Your task to perform on an android device: toggle translation in the chrome app Image 0: 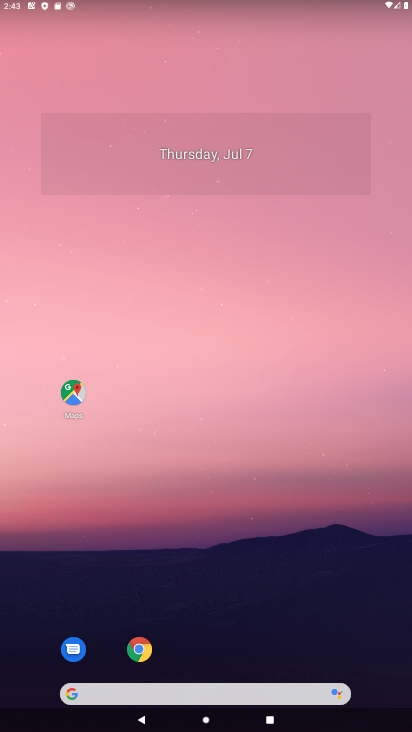
Step 0: click (143, 656)
Your task to perform on an android device: toggle translation in the chrome app Image 1: 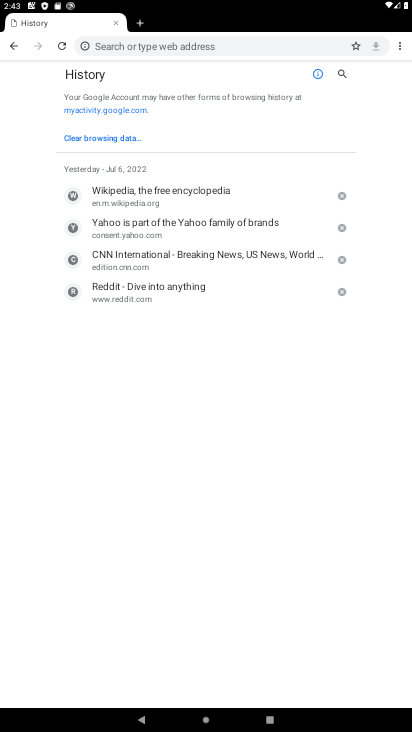
Step 1: drag from (397, 41) to (305, 213)
Your task to perform on an android device: toggle translation in the chrome app Image 2: 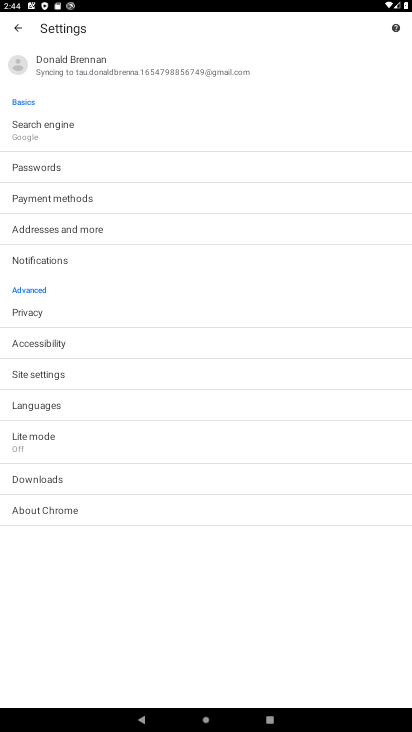
Step 2: click (50, 407)
Your task to perform on an android device: toggle translation in the chrome app Image 3: 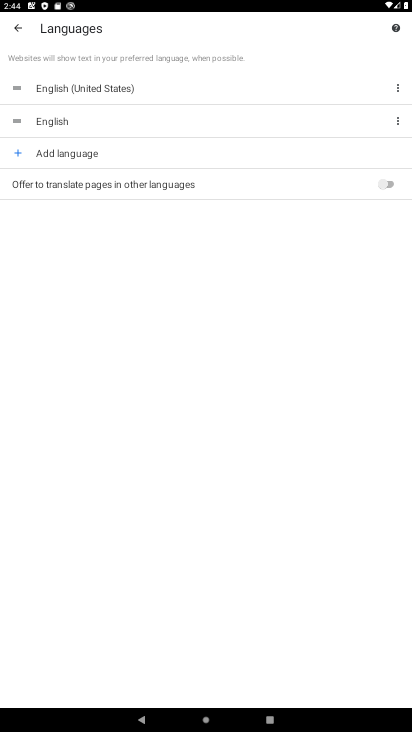
Step 3: click (392, 185)
Your task to perform on an android device: toggle translation in the chrome app Image 4: 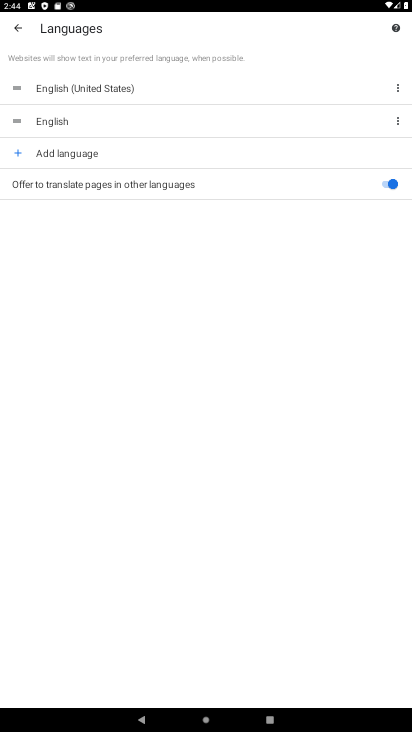
Step 4: task complete